Your task to perform on an android device: find snoozed emails in the gmail app Image 0: 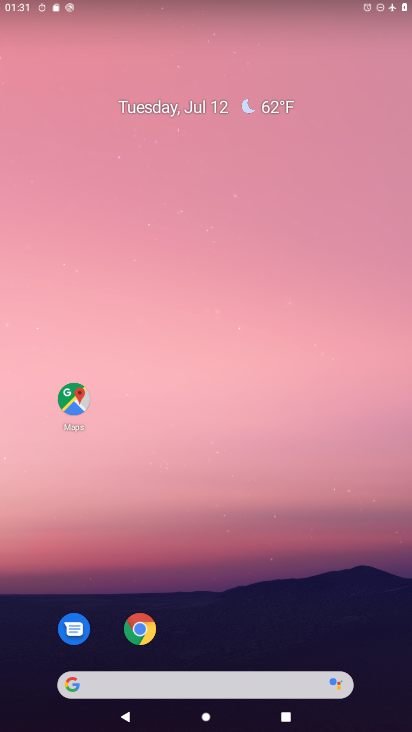
Step 0: drag from (318, 617) to (294, 221)
Your task to perform on an android device: find snoozed emails in the gmail app Image 1: 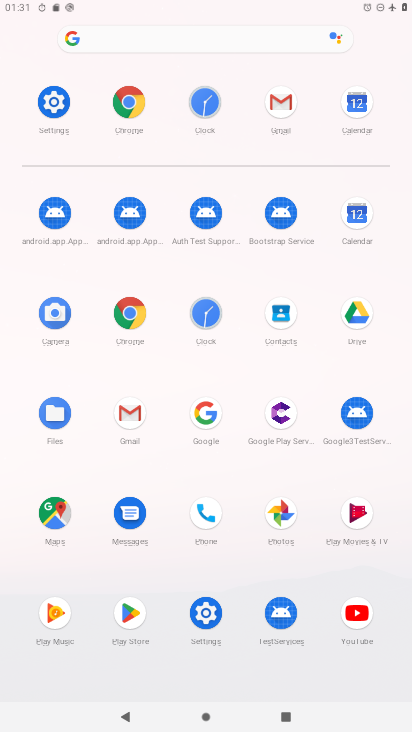
Step 1: click (122, 417)
Your task to perform on an android device: find snoozed emails in the gmail app Image 2: 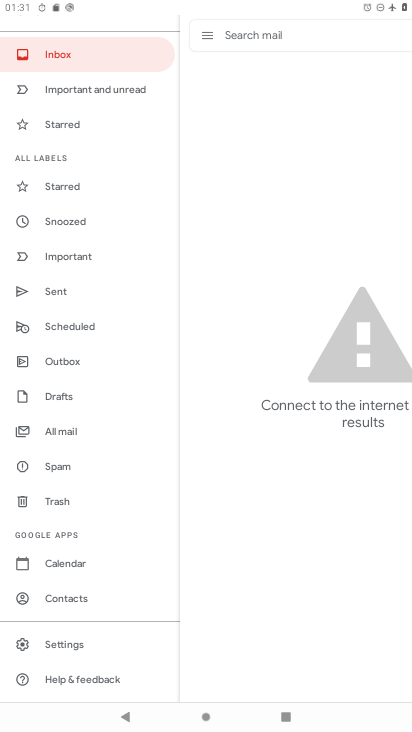
Step 2: click (57, 227)
Your task to perform on an android device: find snoozed emails in the gmail app Image 3: 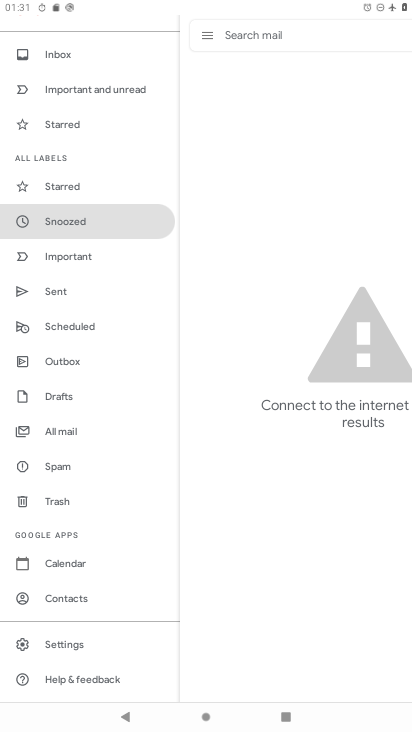
Step 3: task complete